Your task to perform on an android device: Go to ESPN.com Image 0: 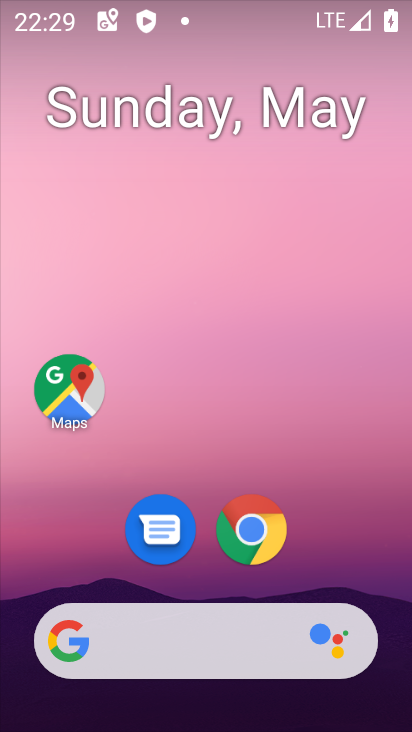
Step 0: click (126, 658)
Your task to perform on an android device: Go to ESPN.com Image 1: 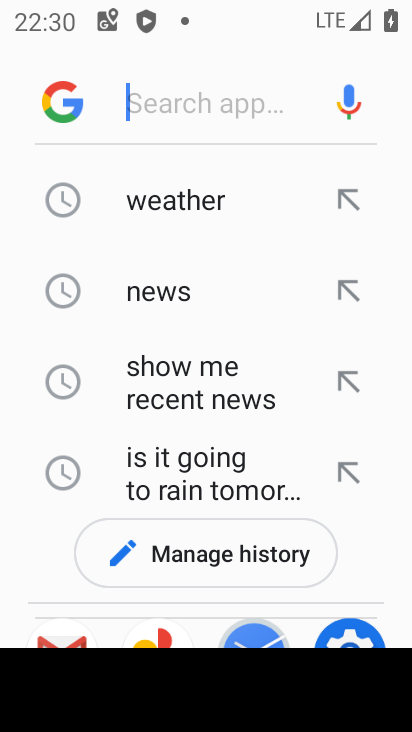
Step 1: type "espn.com"
Your task to perform on an android device: Go to ESPN.com Image 2: 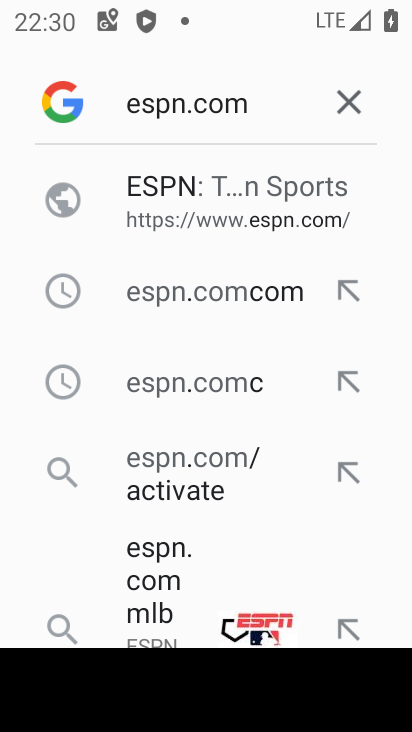
Step 2: click (221, 203)
Your task to perform on an android device: Go to ESPN.com Image 3: 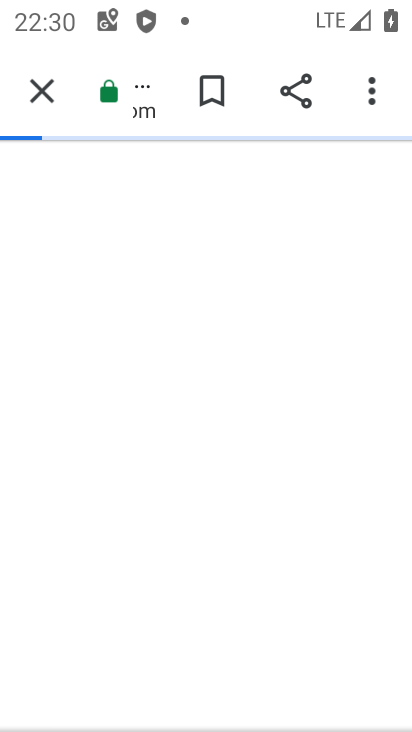
Step 3: task complete